Your task to perform on an android device: see creations saved in the google photos Image 0: 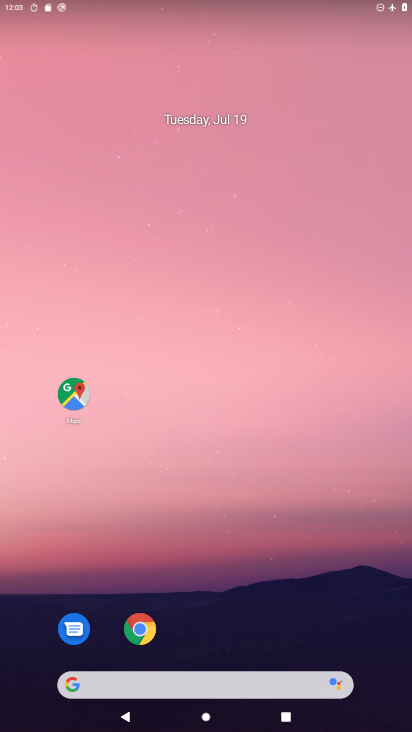
Step 0: drag from (331, 624) to (303, 63)
Your task to perform on an android device: see creations saved in the google photos Image 1: 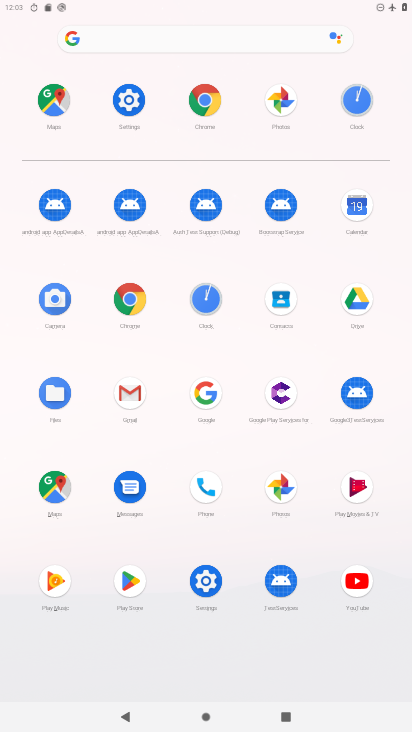
Step 1: click (288, 488)
Your task to perform on an android device: see creations saved in the google photos Image 2: 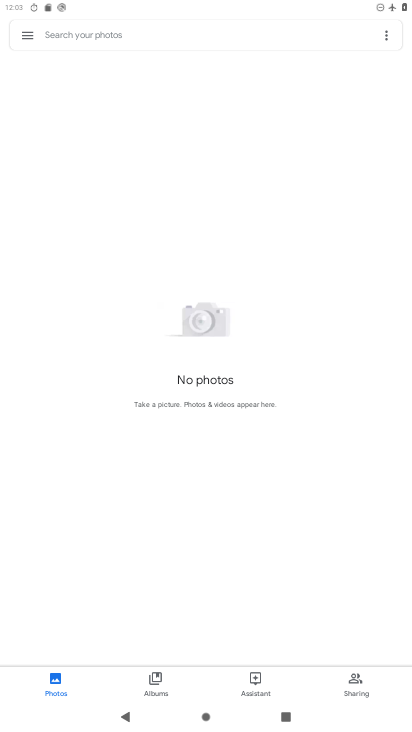
Step 2: click (289, 679)
Your task to perform on an android device: see creations saved in the google photos Image 3: 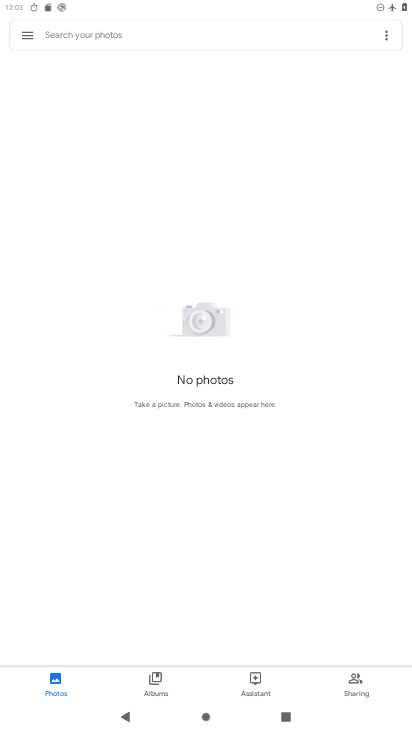
Step 3: click (275, 682)
Your task to perform on an android device: see creations saved in the google photos Image 4: 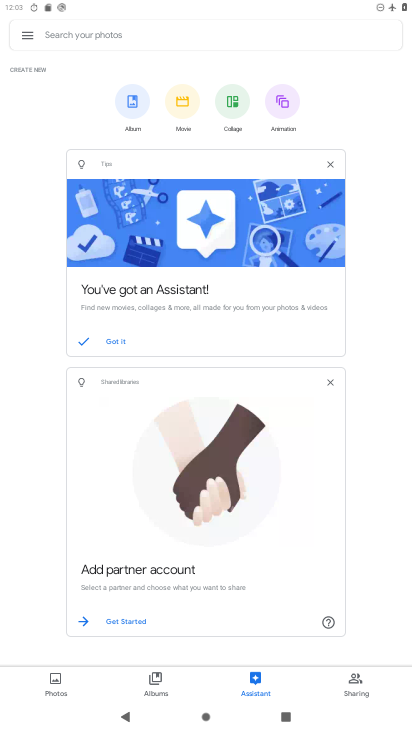
Step 4: click (176, 678)
Your task to perform on an android device: see creations saved in the google photos Image 5: 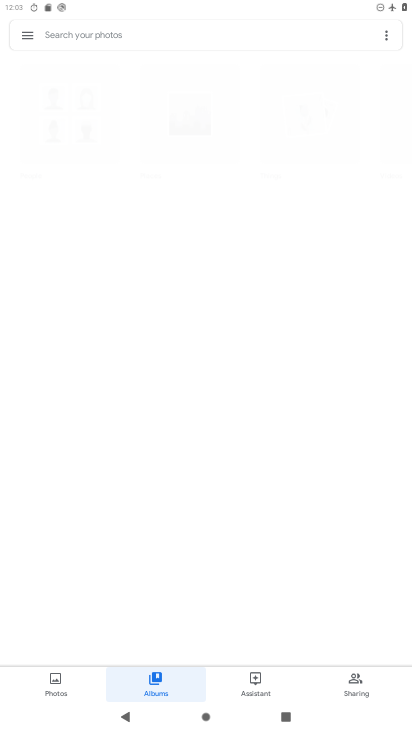
Step 5: click (347, 679)
Your task to perform on an android device: see creations saved in the google photos Image 6: 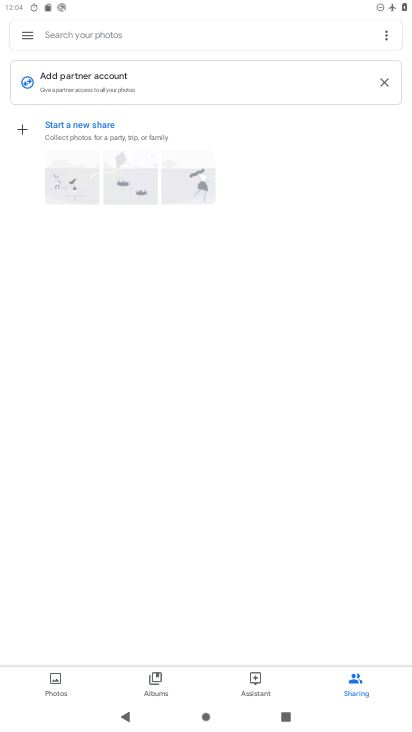
Step 6: task complete